Your task to perform on an android device: Go to Google Image 0: 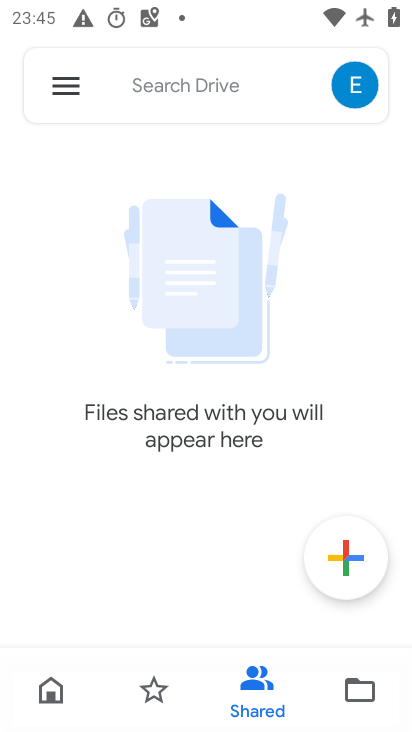
Step 0: press back button
Your task to perform on an android device: Go to Google Image 1: 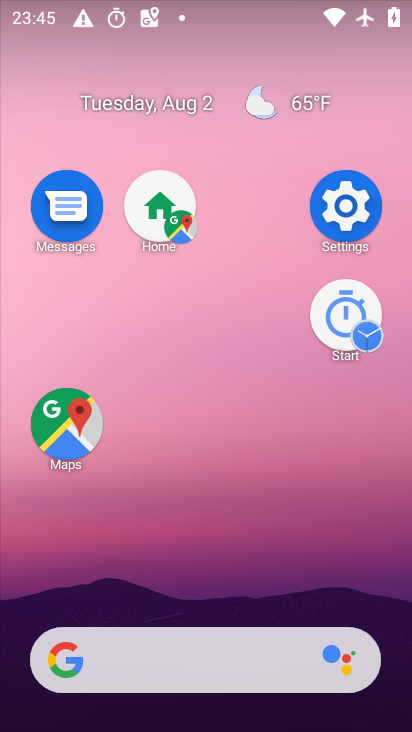
Step 1: click (188, 205)
Your task to perform on an android device: Go to Google Image 2: 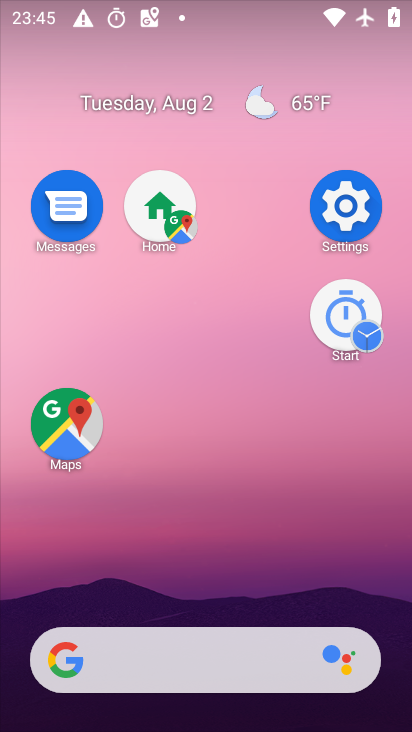
Step 2: drag from (203, 126) to (137, 128)
Your task to perform on an android device: Go to Google Image 3: 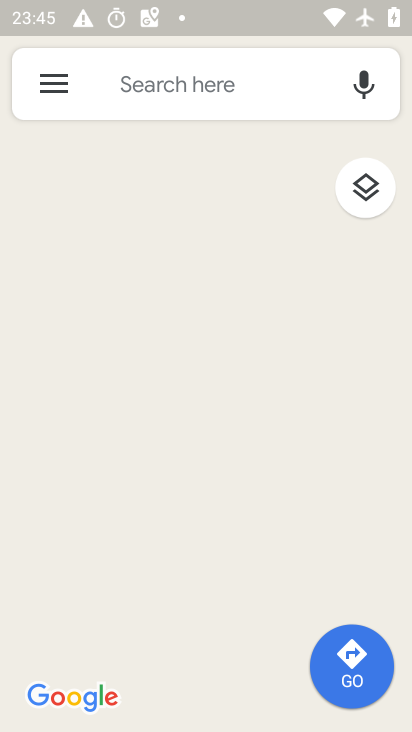
Step 3: drag from (220, 103) to (194, 141)
Your task to perform on an android device: Go to Google Image 4: 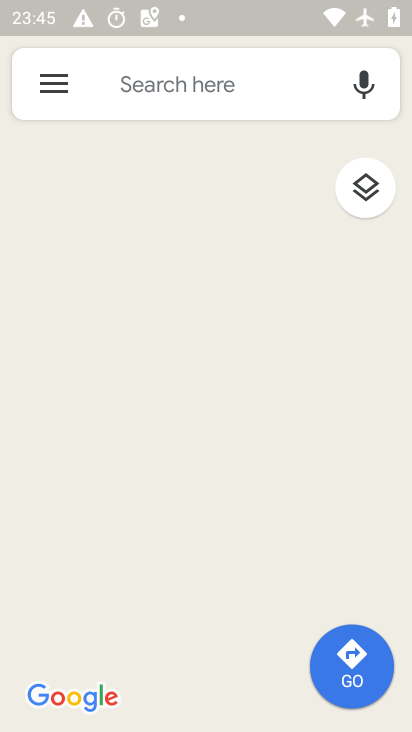
Step 4: drag from (175, 451) to (192, 69)
Your task to perform on an android device: Go to Google Image 5: 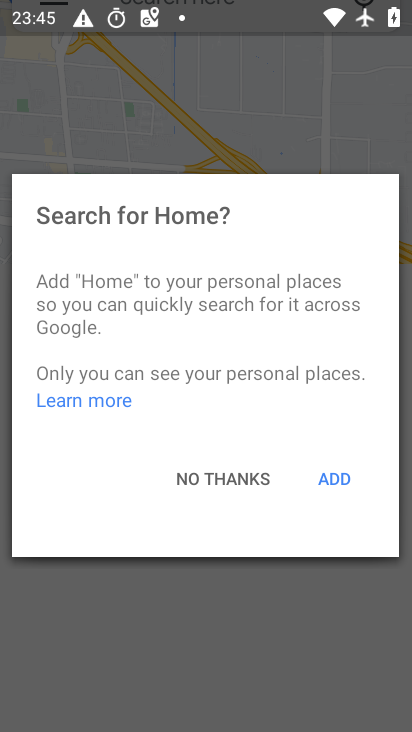
Step 5: press back button
Your task to perform on an android device: Go to Google Image 6: 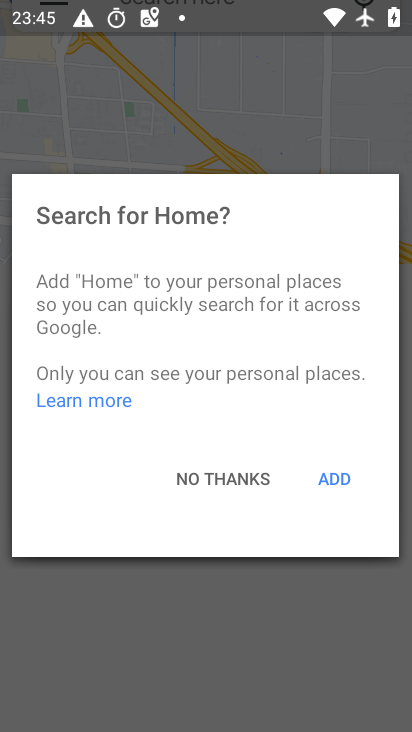
Step 6: click (240, 473)
Your task to perform on an android device: Go to Google Image 7: 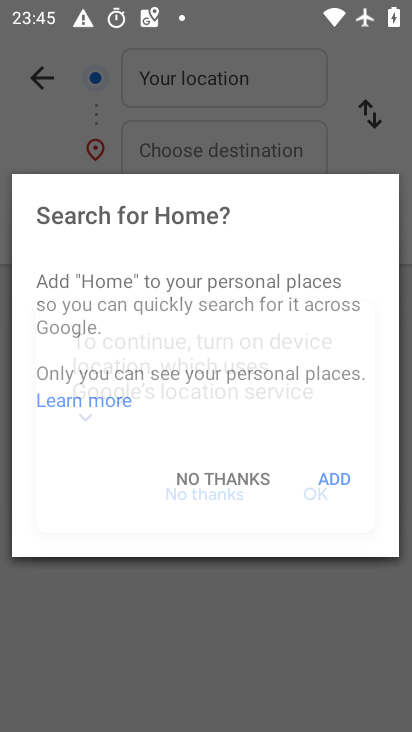
Step 7: press back button
Your task to perform on an android device: Go to Google Image 8: 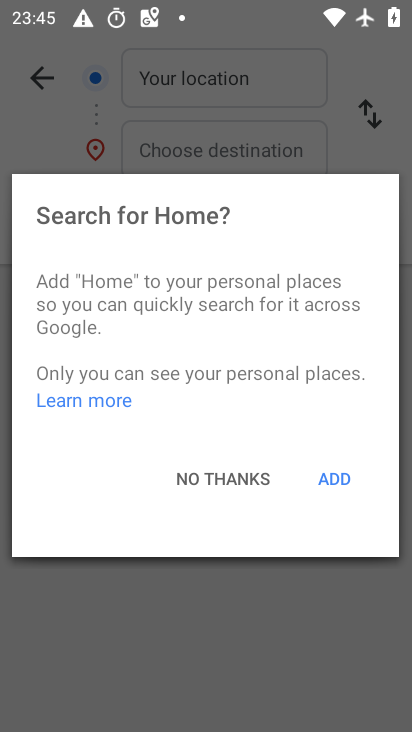
Step 8: click (184, 148)
Your task to perform on an android device: Go to Google Image 9: 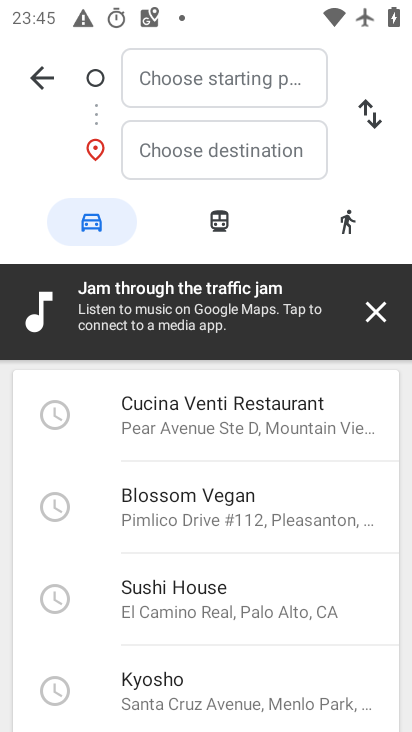
Step 9: press home button
Your task to perform on an android device: Go to Google Image 10: 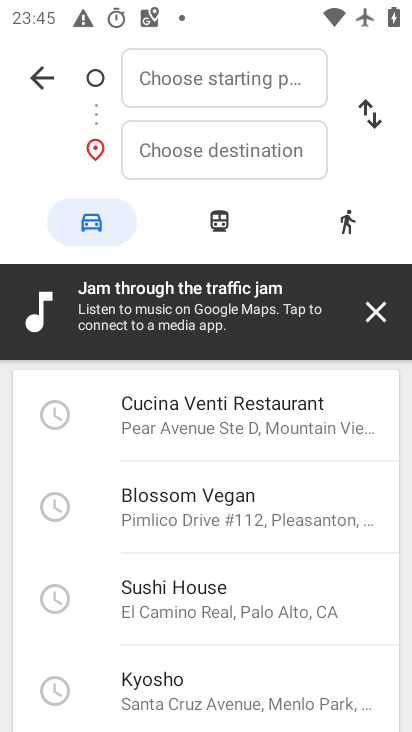
Step 10: press home button
Your task to perform on an android device: Go to Google Image 11: 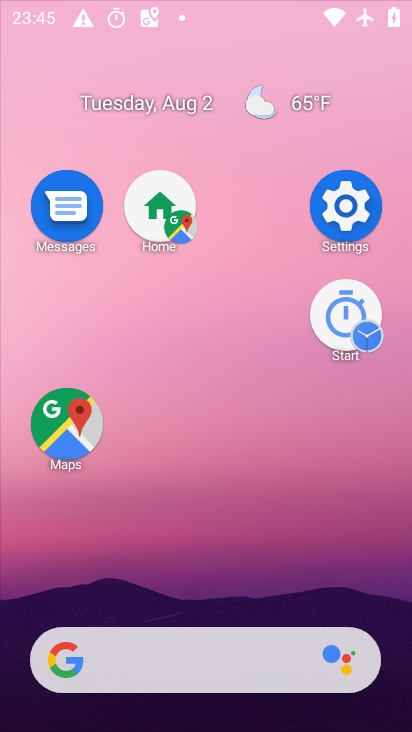
Step 11: press home button
Your task to perform on an android device: Go to Google Image 12: 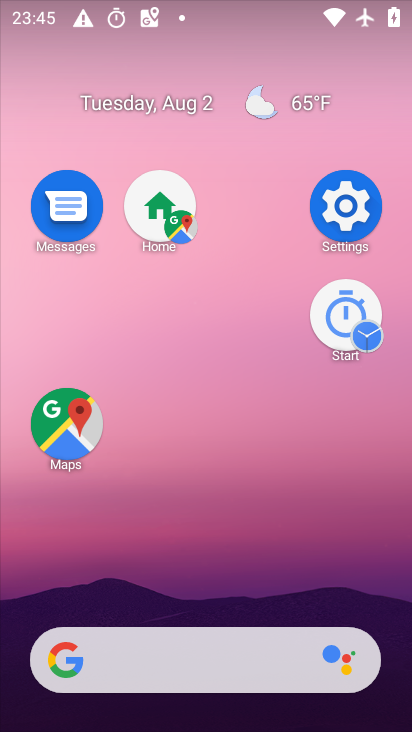
Step 12: press back button
Your task to perform on an android device: Go to Google Image 13: 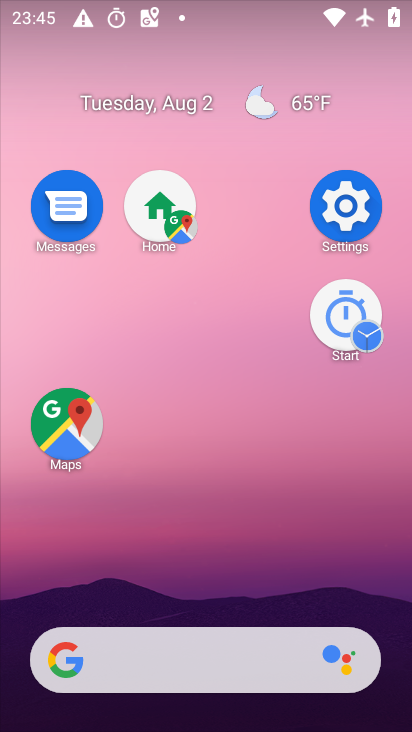
Step 13: drag from (195, 529) to (176, 46)
Your task to perform on an android device: Go to Google Image 14: 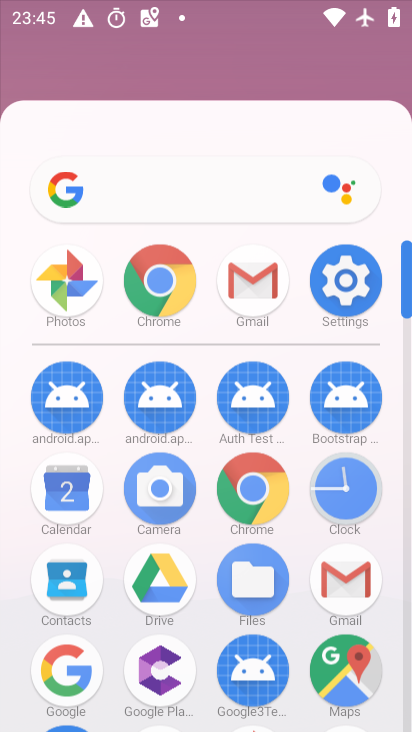
Step 14: drag from (181, 388) to (126, 108)
Your task to perform on an android device: Go to Google Image 15: 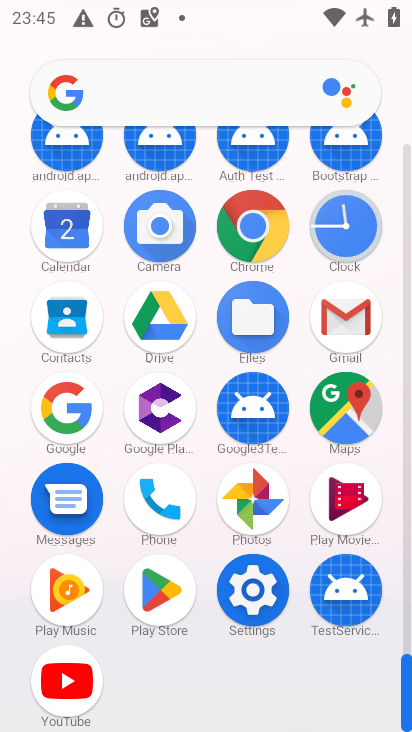
Step 15: drag from (200, 372) to (200, 228)
Your task to perform on an android device: Go to Google Image 16: 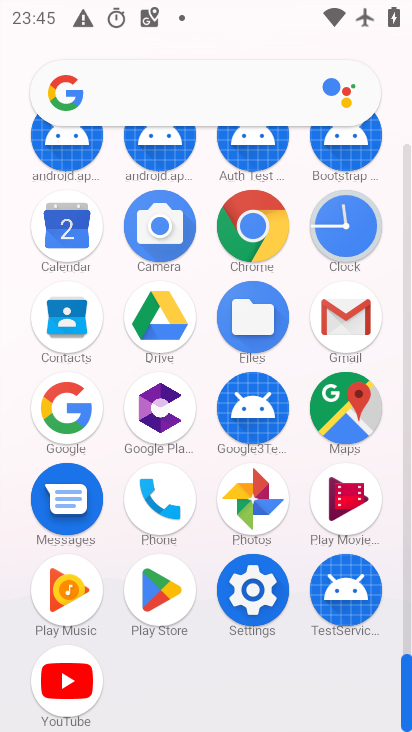
Step 16: drag from (212, 276) to (259, 653)
Your task to perform on an android device: Go to Google Image 17: 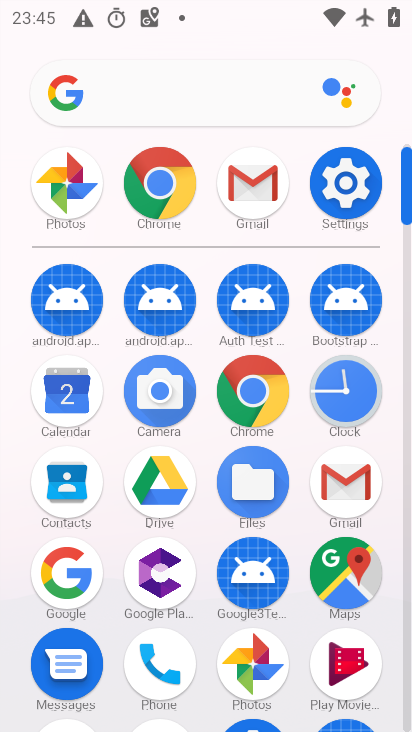
Step 17: click (76, 572)
Your task to perform on an android device: Go to Google Image 18: 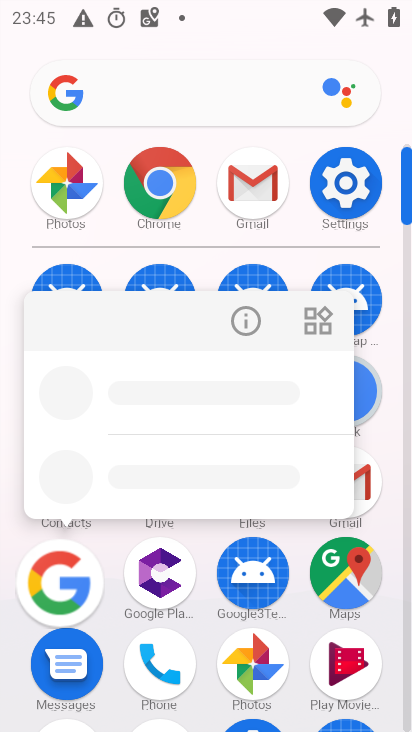
Step 18: click (69, 594)
Your task to perform on an android device: Go to Google Image 19: 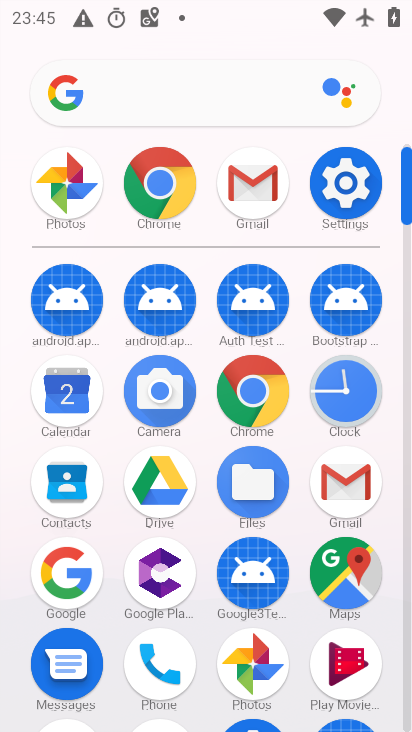
Step 19: click (69, 594)
Your task to perform on an android device: Go to Google Image 20: 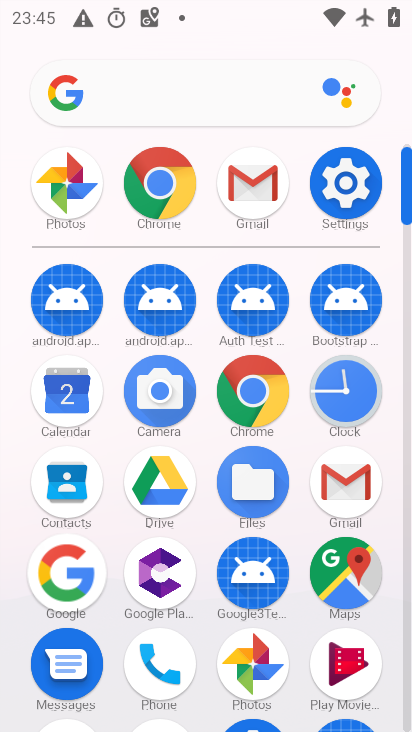
Step 20: click (73, 595)
Your task to perform on an android device: Go to Google Image 21: 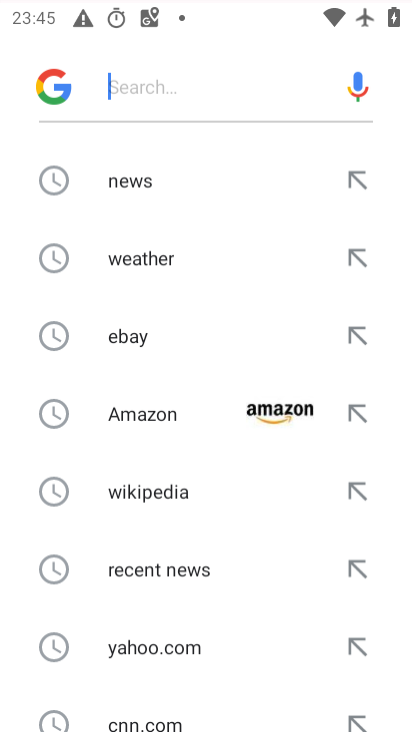
Step 21: click (75, 587)
Your task to perform on an android device: Go to Google Image 22: 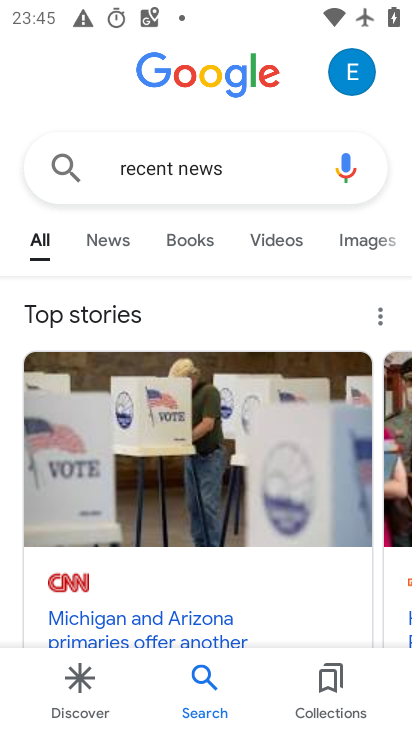
Step 22: task complete